Your task to perform on an android device: choose inbox layout in the gmail app Image 0: 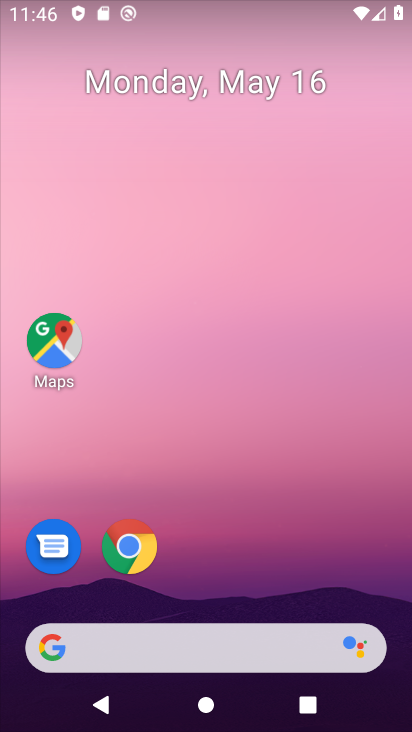
Step 0: drag from (234, 545) to (255, 96)
Your task to perform on an android device: choose inbox layout in the gmail app Image 1: 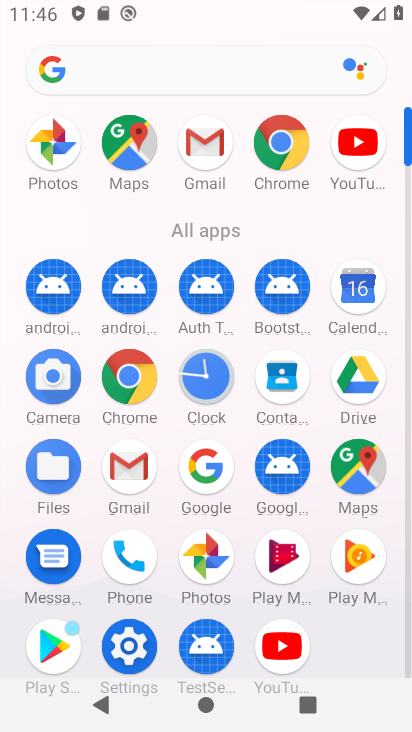
Step 1: click (211, 137)
Your task to perform on an android device: choose inbox layout in the gmail app Image 2: 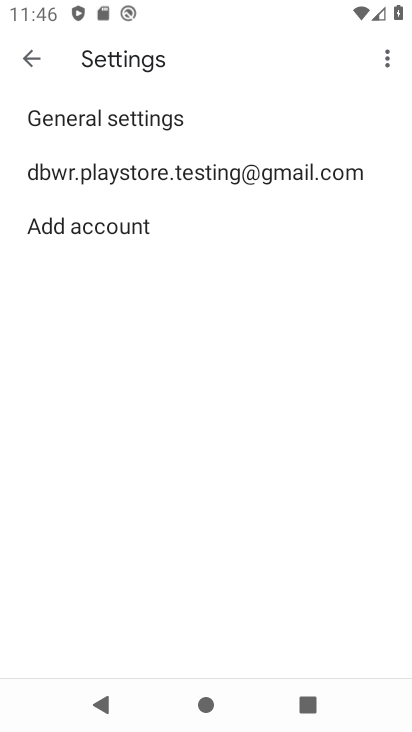
Step 2: click (89, 175)
Your task to perform on an android device: choose inbox layout in the gmail app Image 3: 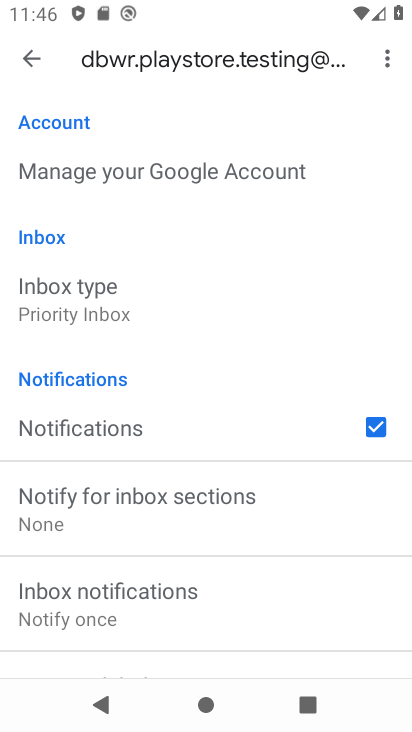
Step 3: click (83, 309)
Your task to perform on an android device: choose inbox layout in the gmail app Image 4: 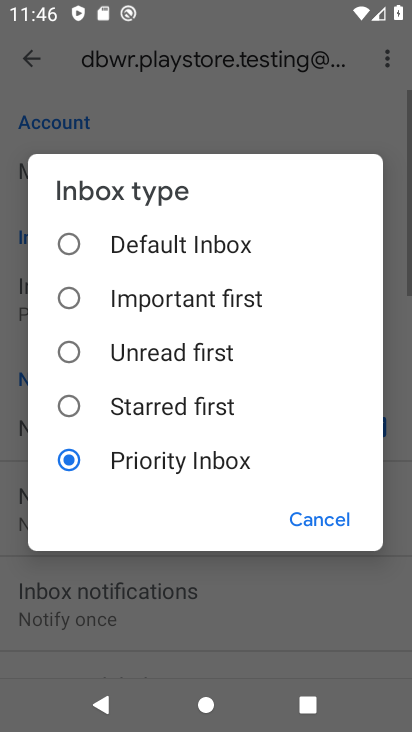
Step 4: click (66, 251)
Your task to perform on an android device: choose inbox layout in the gmail app Image 5: 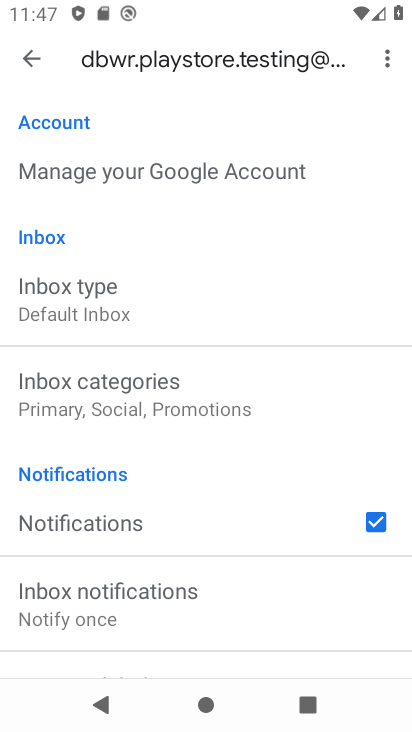
Step 5: task complete